Your task to perform on an android device: turn off location Image 0: 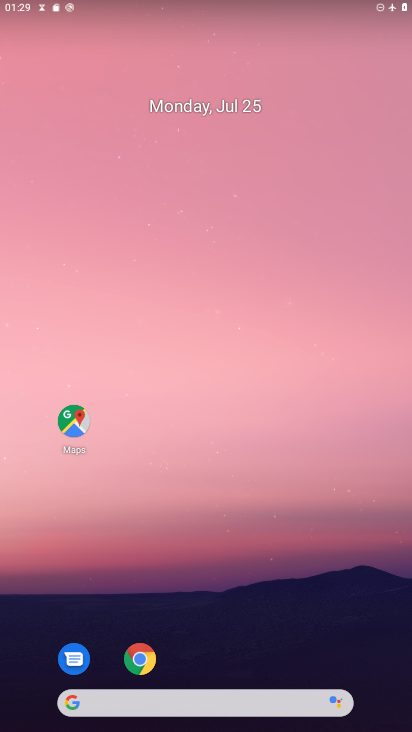
Step 0: drag from (227, 670) to (231, 144)
Your task to perform on an android device: turn off location Image 1: 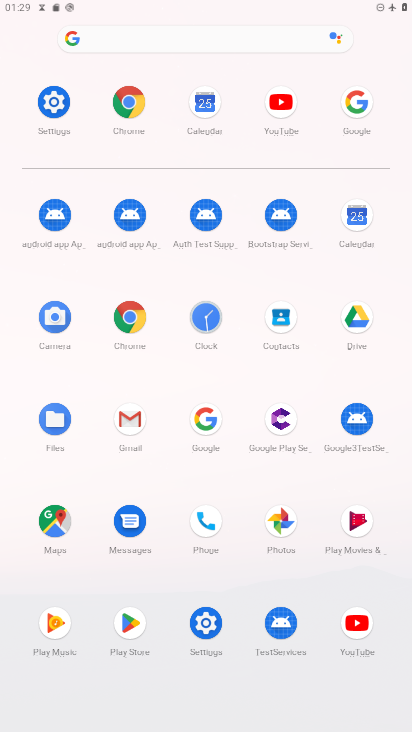
Step 1: click (38, 92)
Your task to perform on an android device: turn off location Image 2: 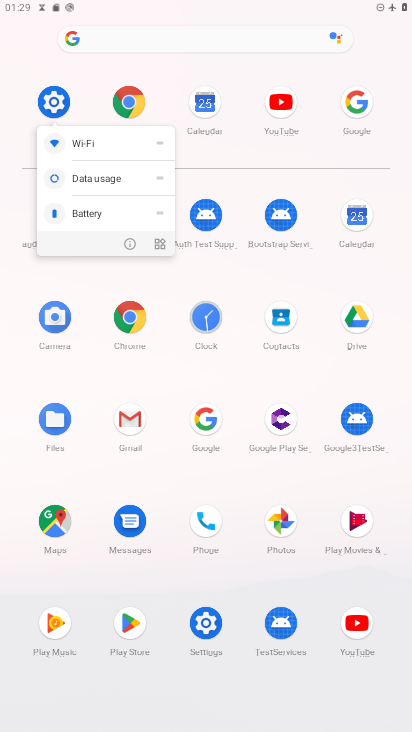
Step 2: click (59, 103)
Your task to perform on an android device: turn off location Image 3: 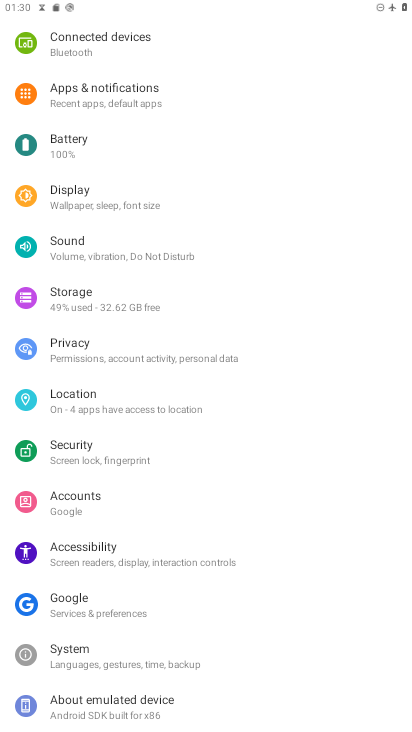
Step 3: click (113, 403)
Your task to perform on an android device: turn off location Image 4: 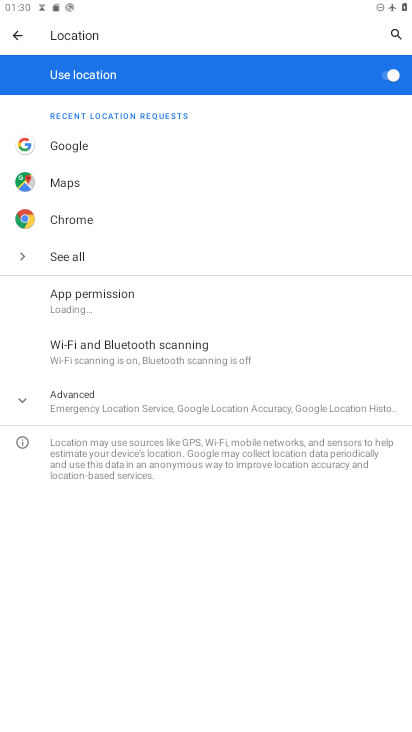
Step 4: click (389, 62)
Your task to perform on an android device: turn off location Image 5: 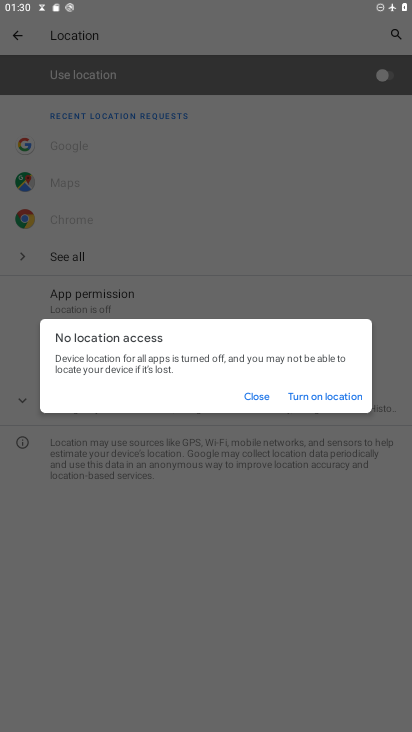
Step 5: click (257, 393)
Your task to perform on an android device: turn off location Image 6: 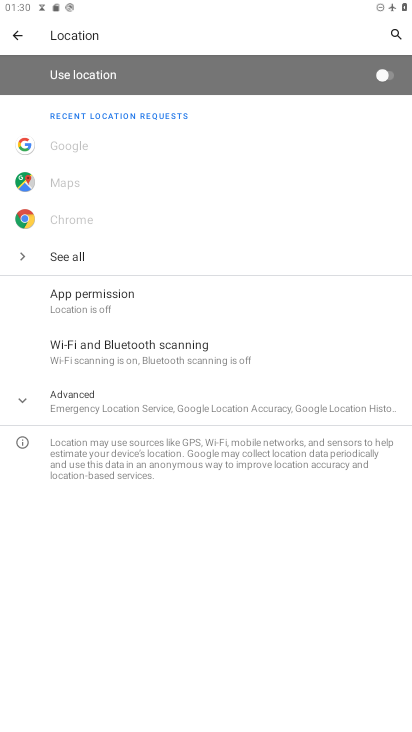
Step 6: task complete